Your task to perform on an android device: Search for Mexican restaurants on Maps Image 0: 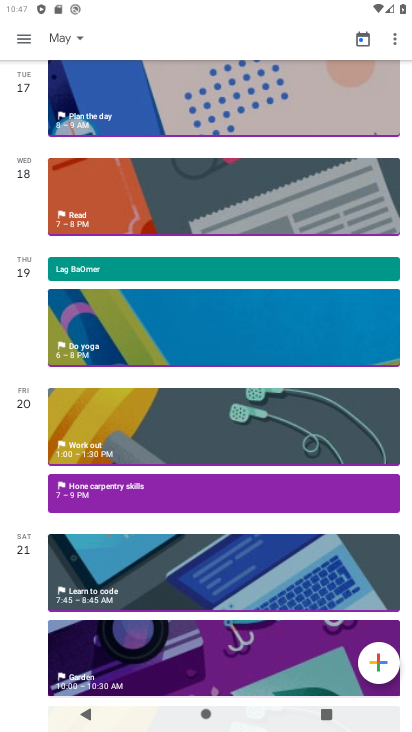
Step 0: press home button
Your task to perform on an android device: Search for Mexican restaurants on Maps Image 1: 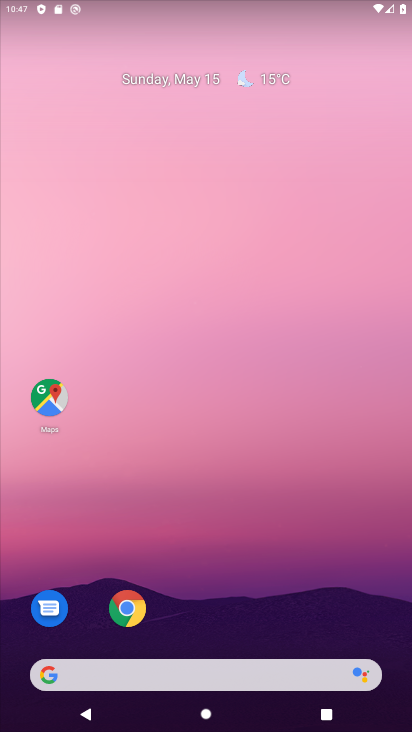
Step 1: click (60, 410)
Your task to perform on an android device: Search for Mexican restaurants on Maps Image 2: 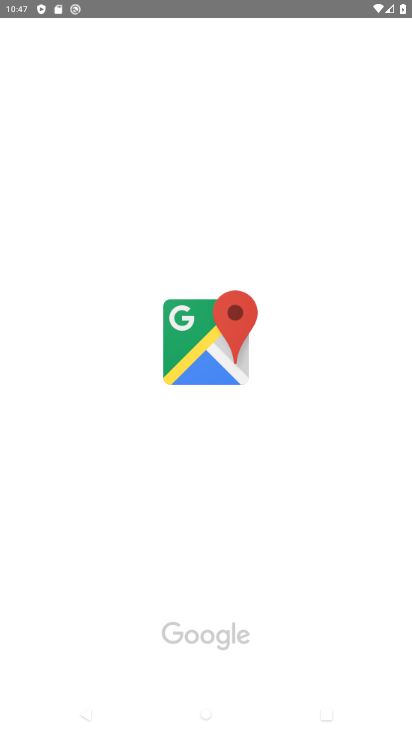
Step 2: click (59, 408)
Your task to perform on an android device: Search for Mexican restaurants on Maps Image 3: 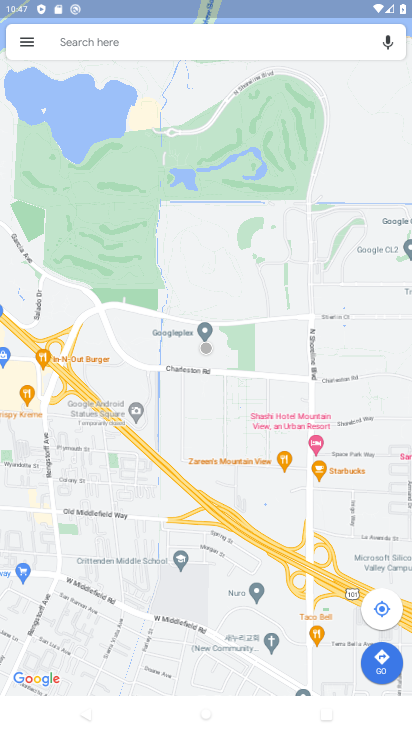
Step 3: click (119, 50)
Your task to perform on an android device: Search for Mexican restaurants on Maps Image 4: 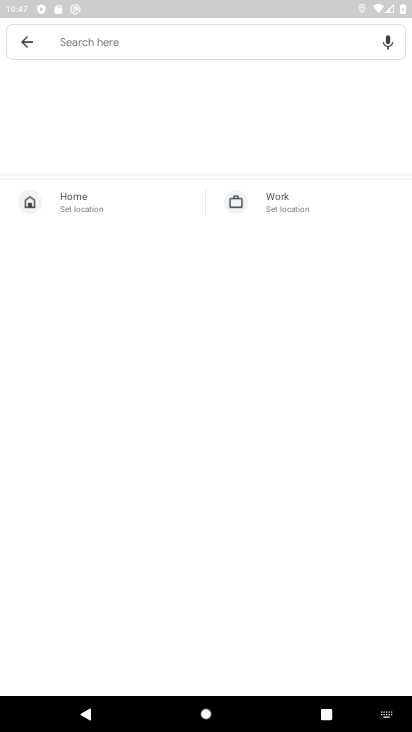
Step 4: click (201, 40)
Your task to perform on an android device: Search for Mexican restaurants on Maps Image 5: 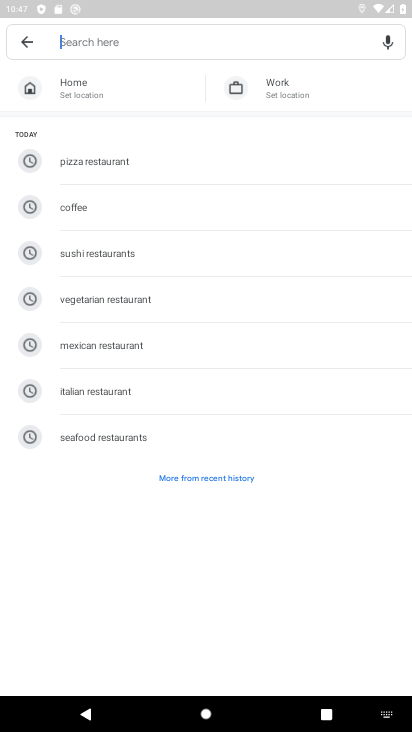
Step 5: click (105, 354)
Your task to perform on an android device: Search for Mexican restaurants on Maps Image 6: 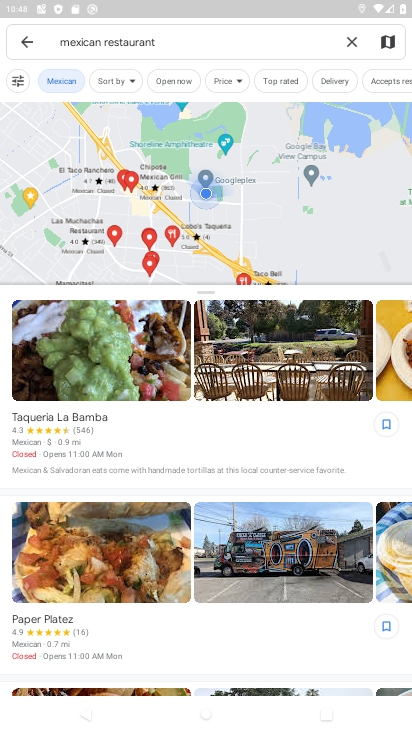
Step 6: task complete